Your task to perform on an android device: add a contact Image 0: 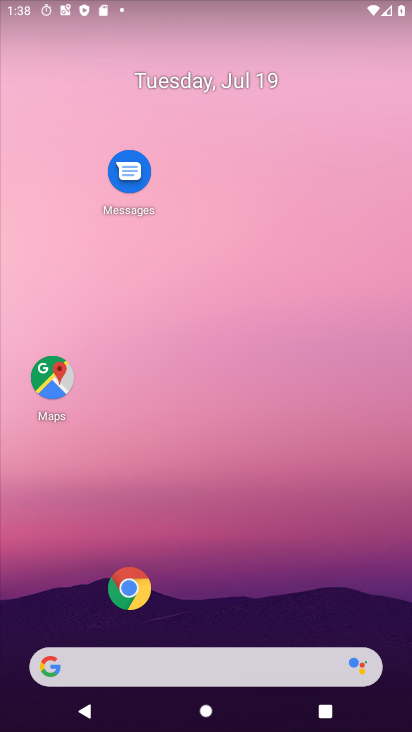
Step 0: drag from (19, 678) to (278, 0)
Your task to perform on an android device: add a contact Image 1: 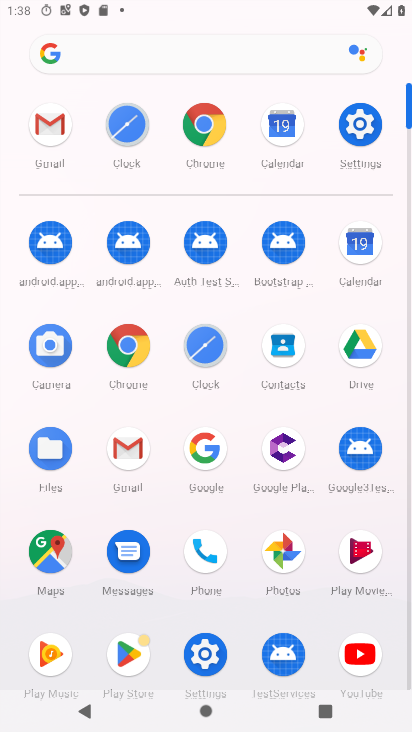
Step 1: click (283, 356)
Your task to perform on an android device: add a contact Image 2: 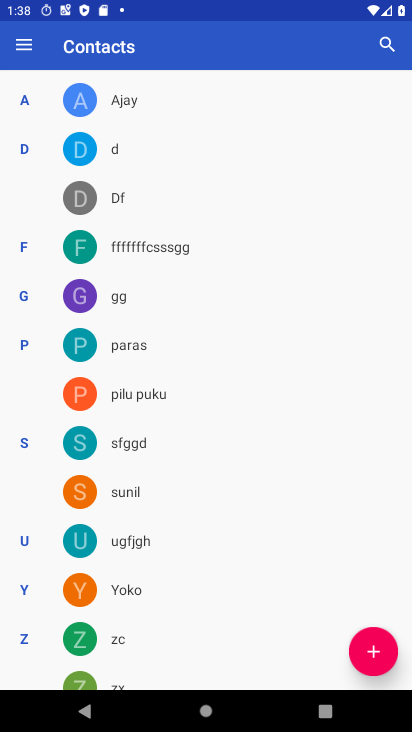
Step 2: click (361, 653)
Your task to perform on an android device: add a contact Image 3: 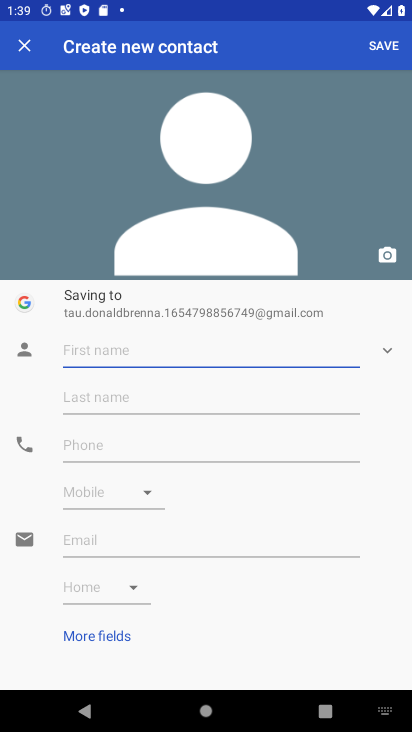
Step 3: type "fhjgvmnf"
Your task to perform on an android device: add a contact Image 4: 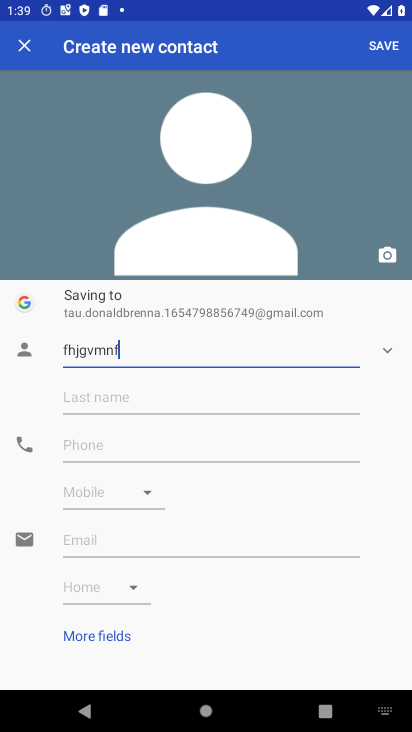
Step 4: type ""
Your task to perform on an android device: add a contact Image 5: 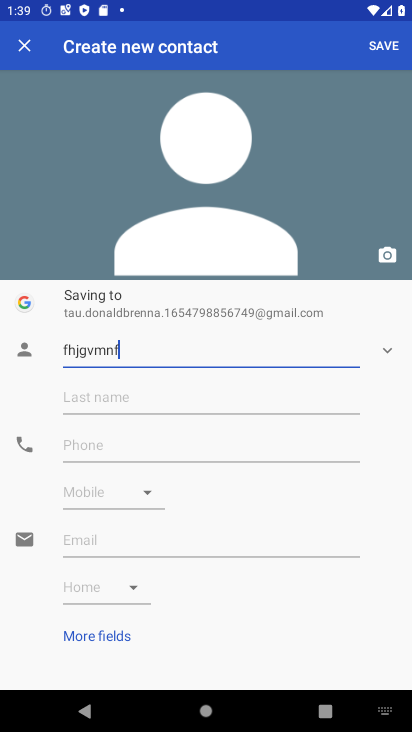
Step 5: click (395, 46)
Your task to perform on an android device: add a contact Image 6: 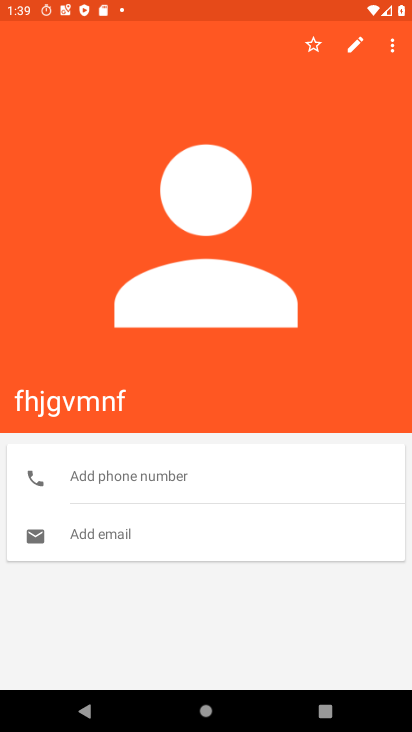
Step 6: task complete